Your task to perform on an android device: read, delete, or share a saved page in the chrome app Image 0: 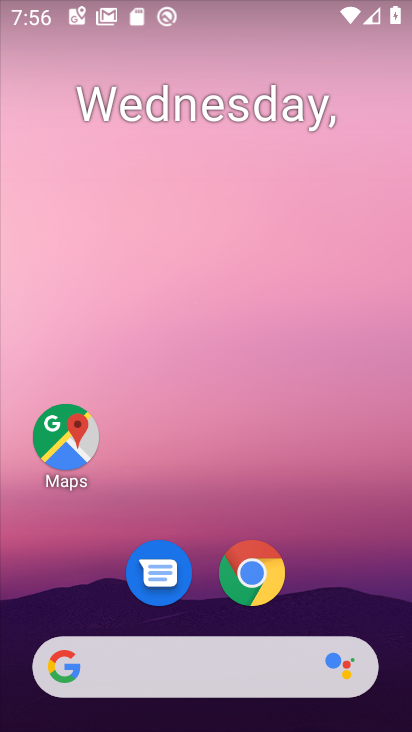
Step 0: click (245, 572)
Your task to perform on an android device: read, delete, or share a saved page in the chrome app Image 1: 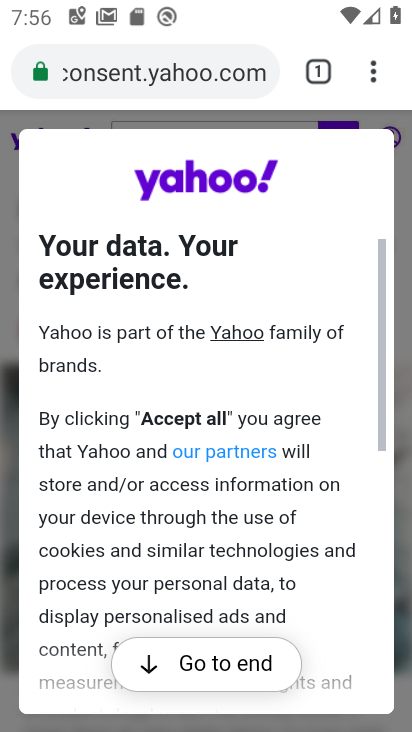
Step 1: click (373, 75)
Your task to perform on an android device: read, delete, or share a saved page in the chrome app Image 2: 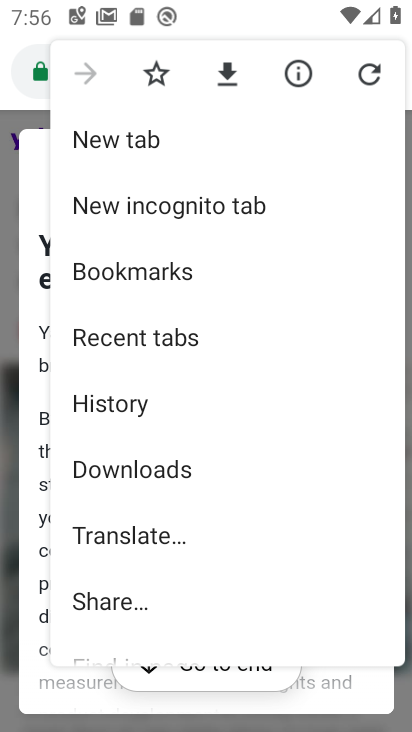
Step 2: click (133, 469)
Your task to perform on an android device: read, delete, or share a saved page in the chrome app Image 3: 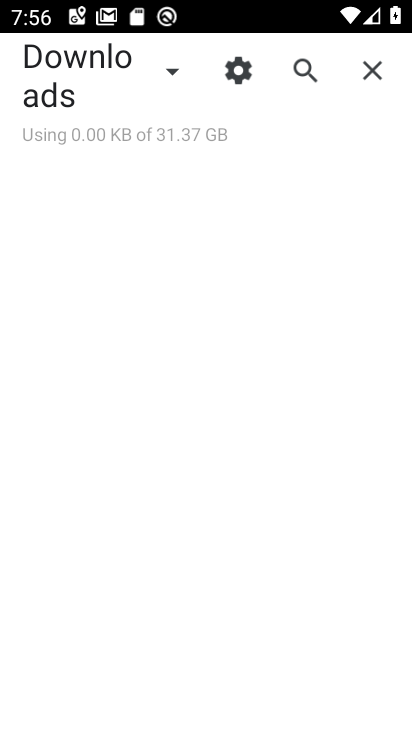
Step 3: click (170, 73)
Your task to perform on an android device: read, delete, or share a saved page in the chrome app Image 4: 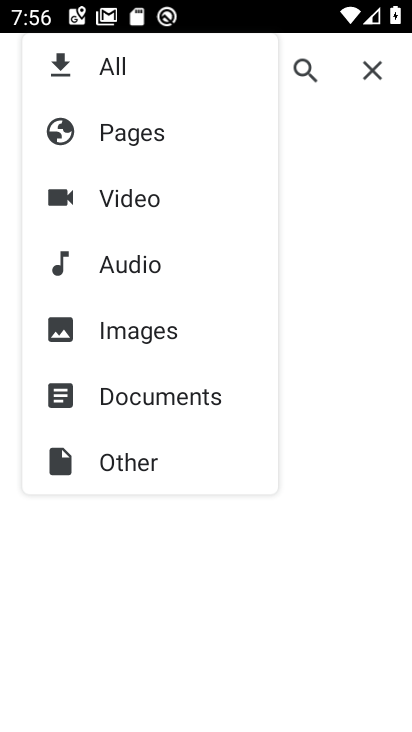
Step 4: click (140, 146)
Your task to perform on an android device: read, delete, or share a saved page in the chrome app Image 5: 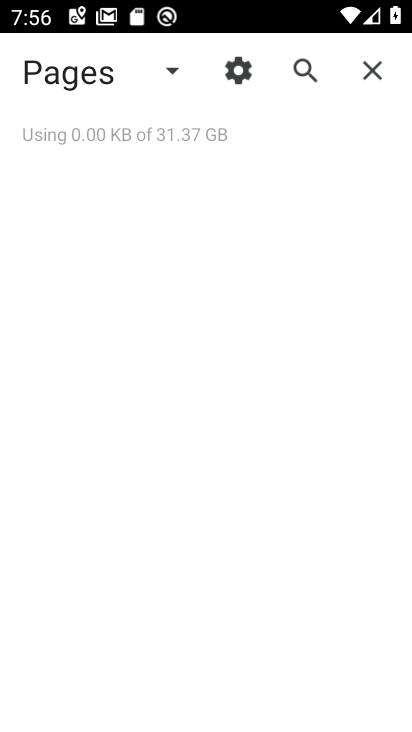
Step 5: task complete